Your task to perform on an android device: set an alarm Image 0: 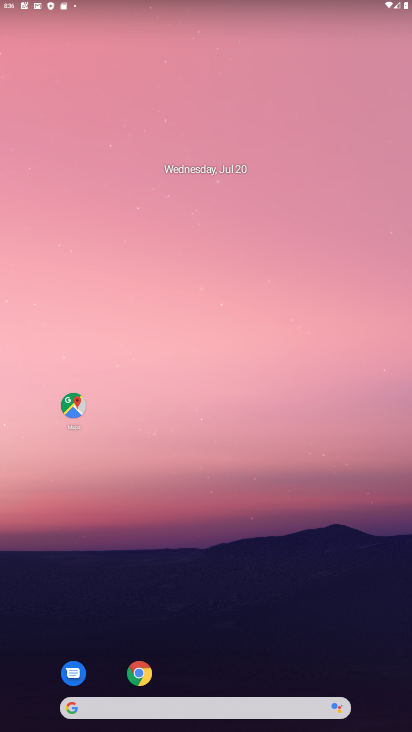
Step 0: drag from (178, 680) to (188, 193)
Your task to perform on an android device: set an alarm Image 1: 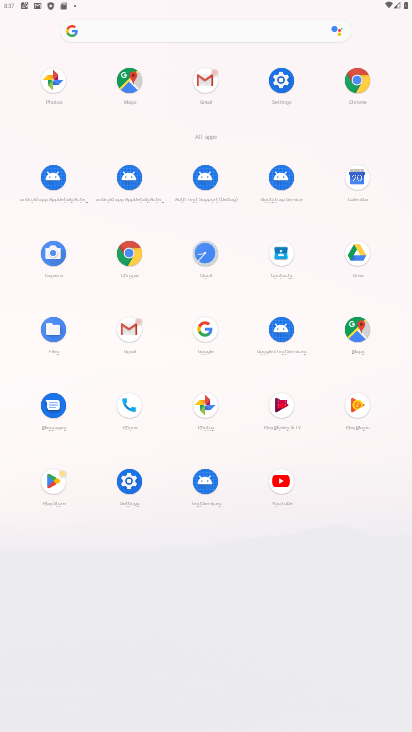
Step 1: click (202, 252)
Your task to perform on an android device: set an alarm Image 2: 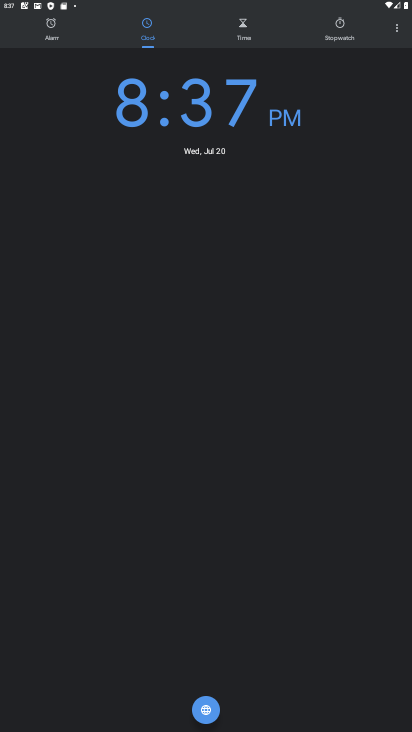
Step 2: click (42, 27)
Your task to perform on an android device: set an alarm Image 3: 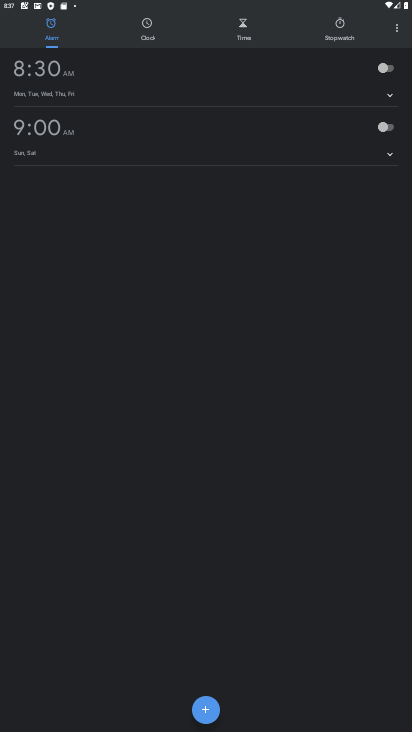
Step 3: click (379, 69)
Your task to perform on an android device: set an alarm Image 4: 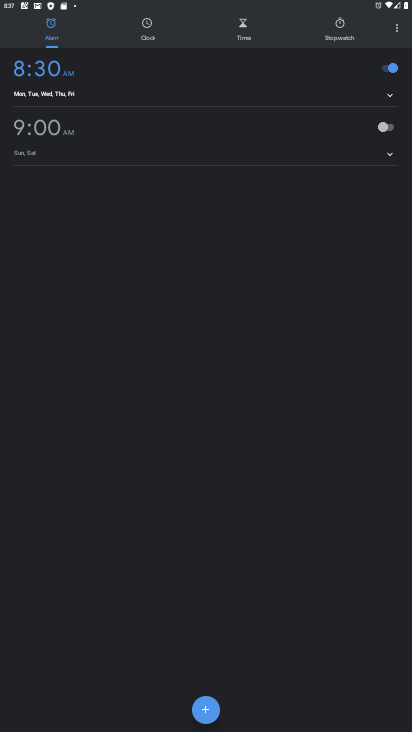
Step 4: task complete